Your task to perform on an android device: Open calendar and show me the second week of next month Image 0: 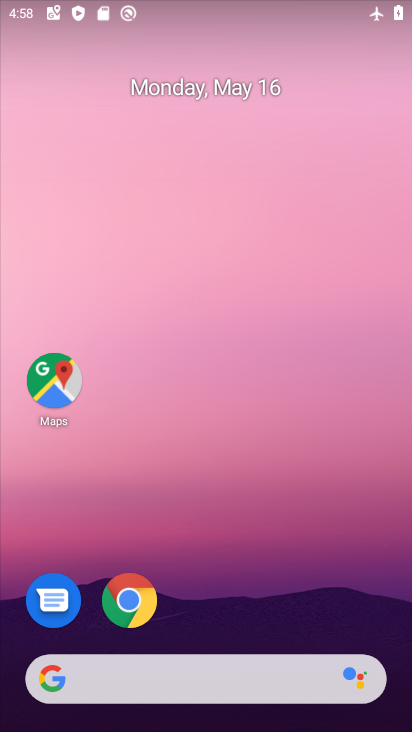
Step 0: drag from (226, 638) to (376, 497)
Your task to perform on an android device: Open calendar and show me the second week of next month Image 1: 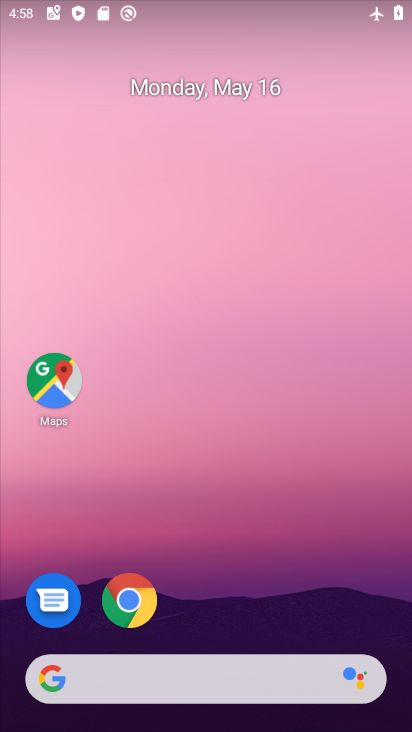
Step 1: drag from (237, 635) to (240, 55)
Your task to perform on an android device: Open calendar and show me the second week of next month Image 2: 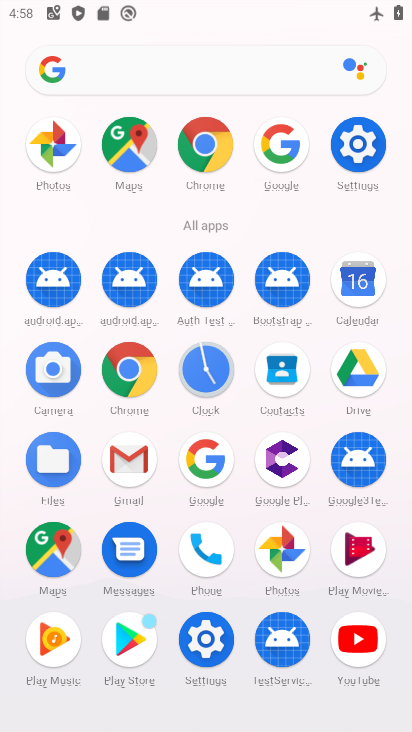
Step 2: click (372, 298)
Your task to perform on an android device: Open calendar and show me the second week of next month Image 3: 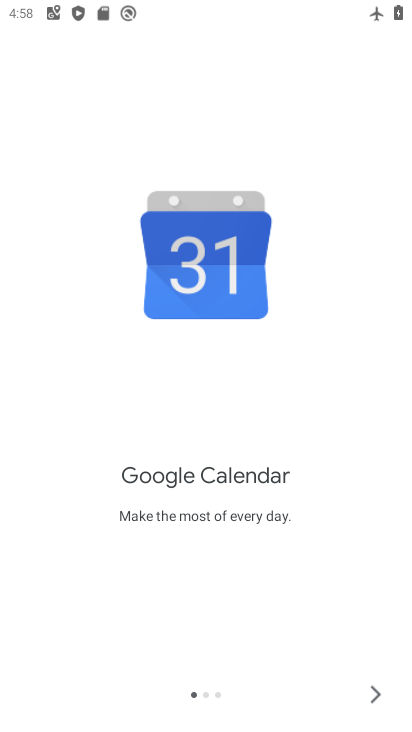
Step 3: click (379, 687)
Your task to perform on an android device: Open calendar and show me the second week of next month Image 4: 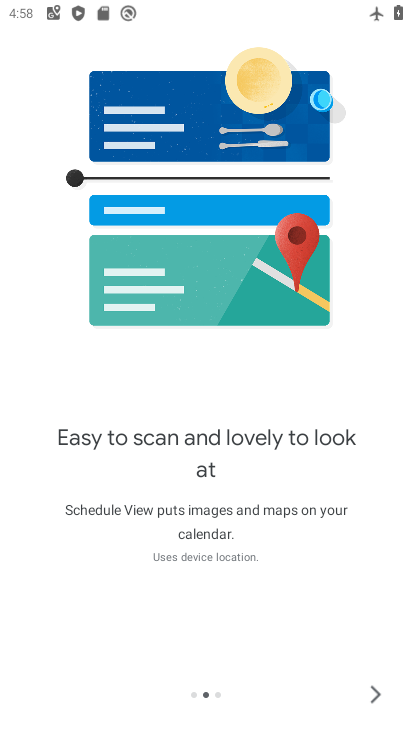
Step 4: click (374, 706)
Your task to perform on an android device: Open calendar and show me the second week of next month Image 5: 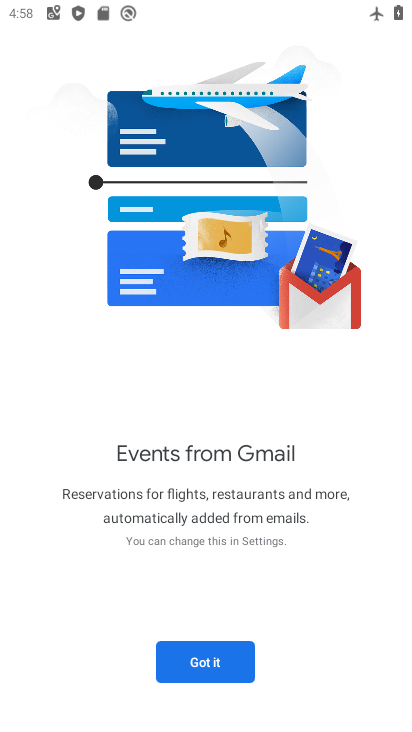
Step 5: click (236, 662)
Your task to perform on an android device: Open calendar and show me the second week of next month Image 6: 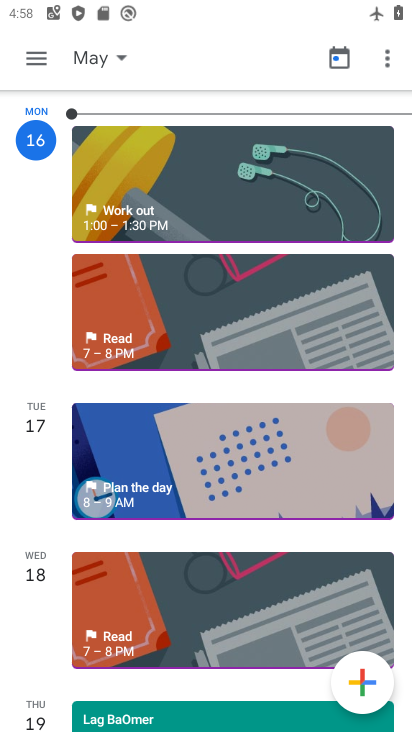
Step 6: click (40, 48)
Your task to perform on an android device: Open calendar and show me the second week of next month Image 7: 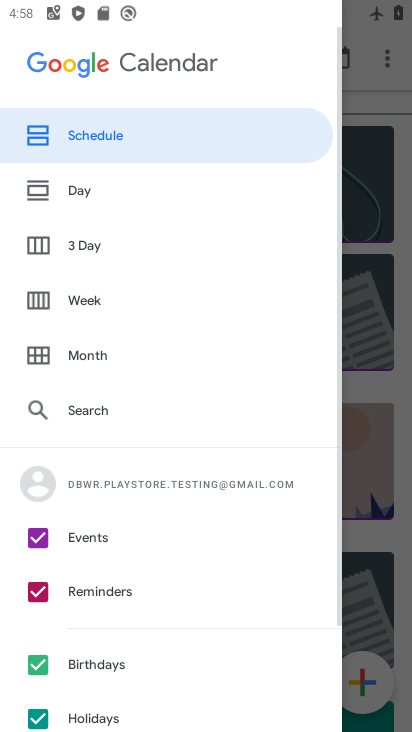
Step 7: click (92, 299)
Your task to perform on an android device: Open calendar and show me the second week of next month Image 8: 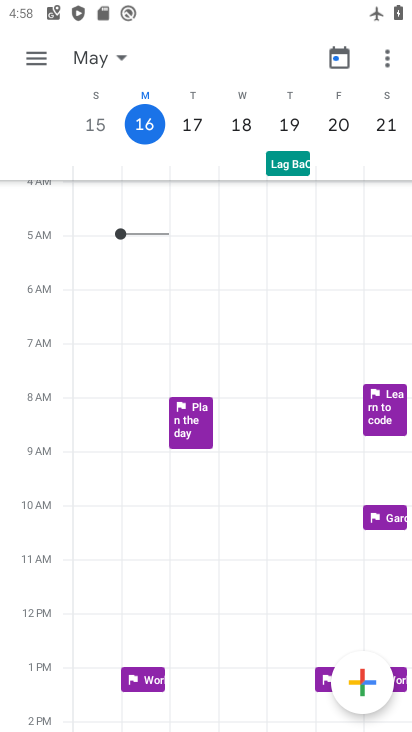
Step 8: task complete